Your task to perform on an android device: See recent photos Image 0: 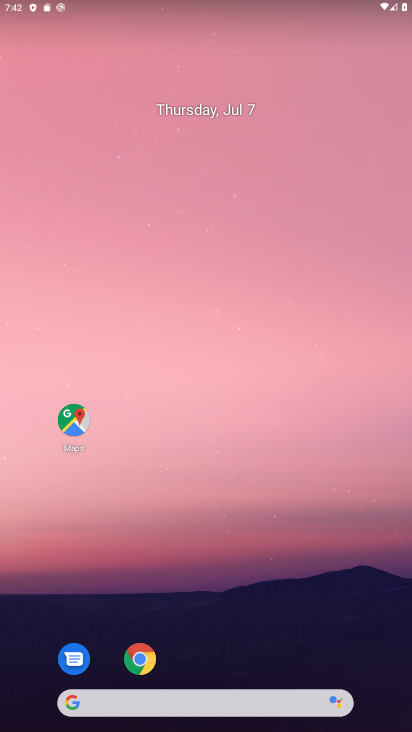
Step 0: drag from (204, 659) to (198, 86)
Your task to perform on an android device: See recent photos Image 1: 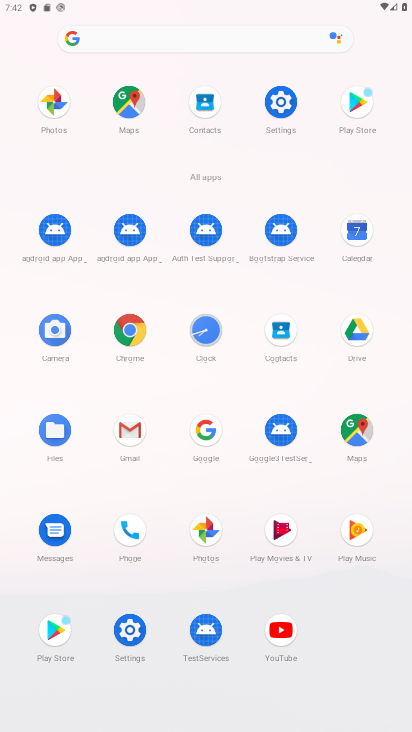
Step 1: click (58, 114)
Your task to perform on an android device: See recent photos Image 2: 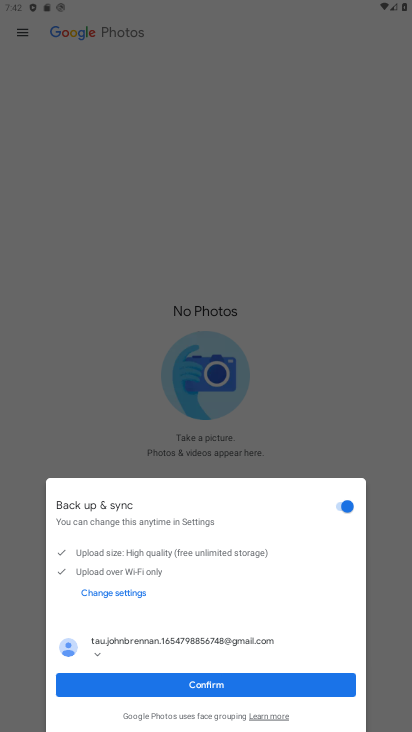
Step 2: click (248, 677)
Your task to perform on an android device: See recent photos Image 3: 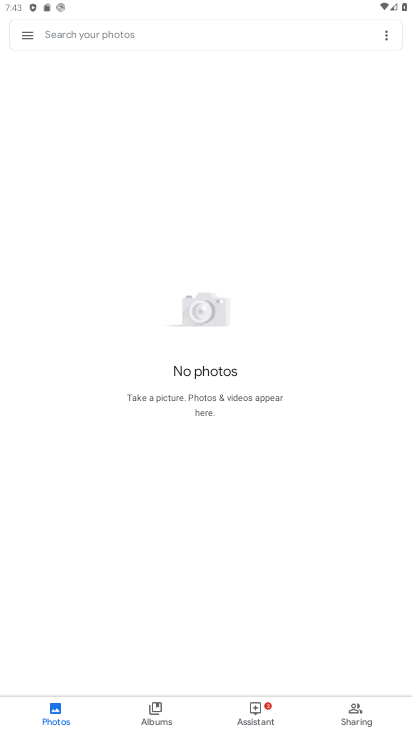
Step 3: task complete